Your task to perform on an android device: toggle translation in the chrome app Image 0: 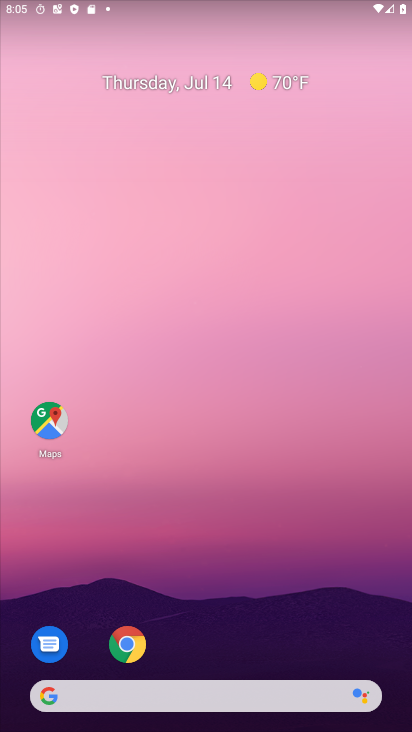
Step 0: click (125, 637)
Your task to perform on an android device: toggle translation in the chrome app Image 1: 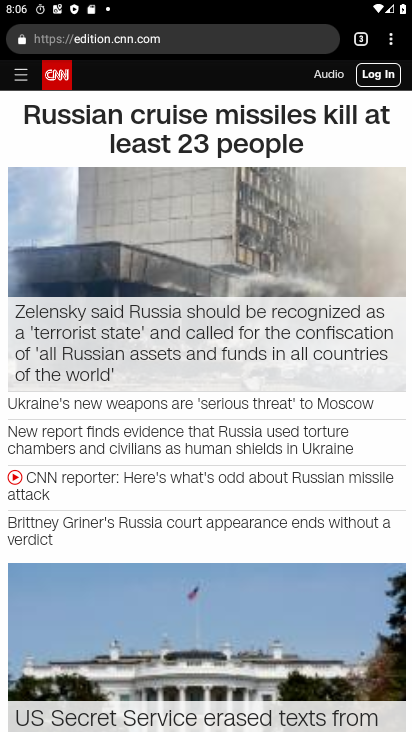
Step 1: drag from (397, 52) to (299, 483)
Your task to perform on an android device: toggle translation in the chrome app Image 2: 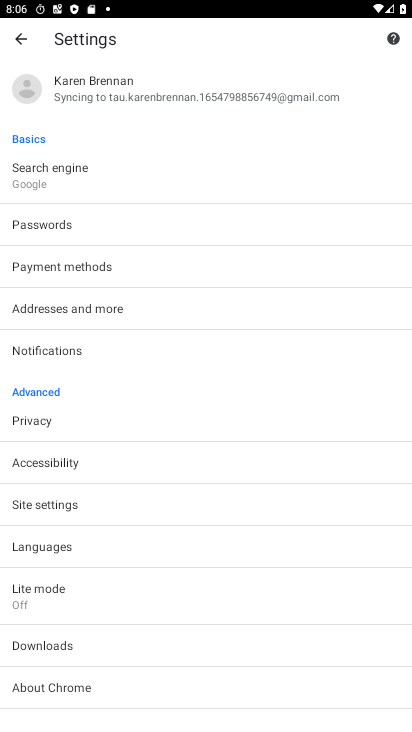
Step 2: click (78, 552)
Your task to perform on an android device: toggle translation in the chrome app Image 3: 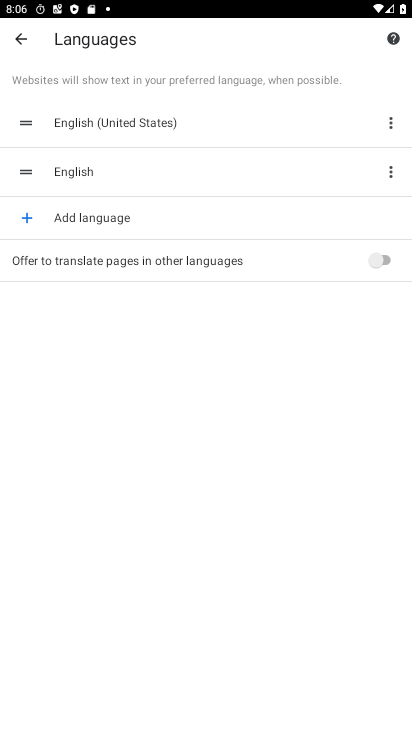
Step 3: click (385, 257)
Your task to perform on an android device: toggle translation in the chrome app Image 4: 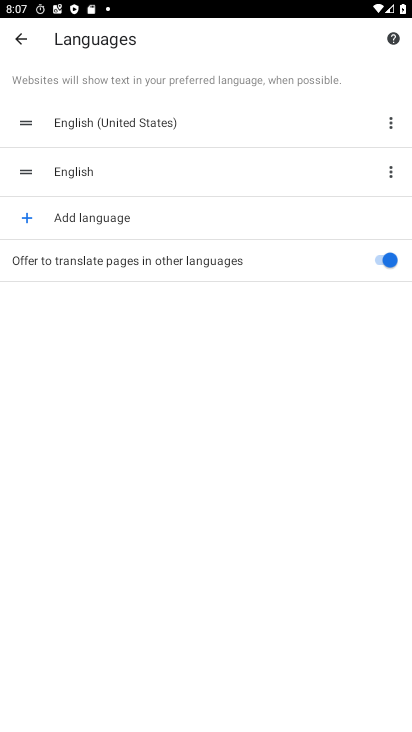
Step 4: task complete